Your task to perform on an android device: What is the recent news? Image 0: 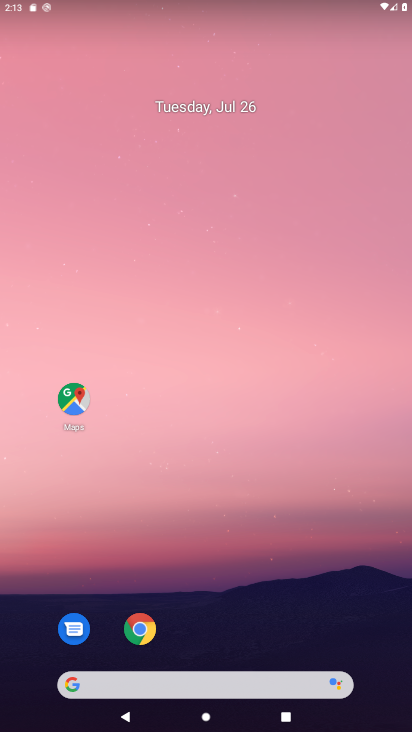
Step 0: drag from (198, 660) to (200, 56)
Your task to perform on an android device: What is the recent news? Image 1: 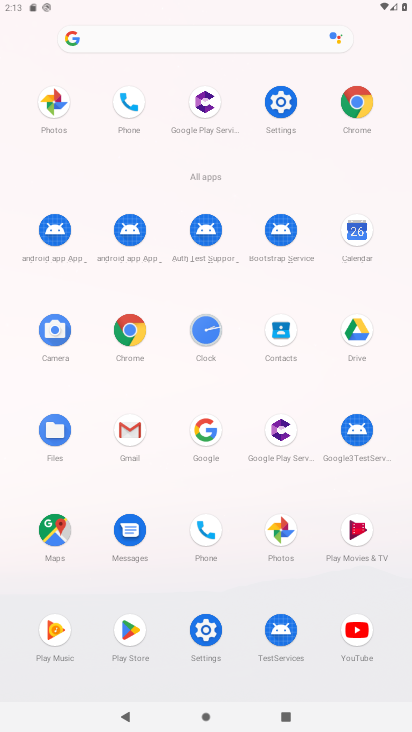
Step 1: click (209, 425)
Your task to perform on an android device: What is the recent news? Image 2: 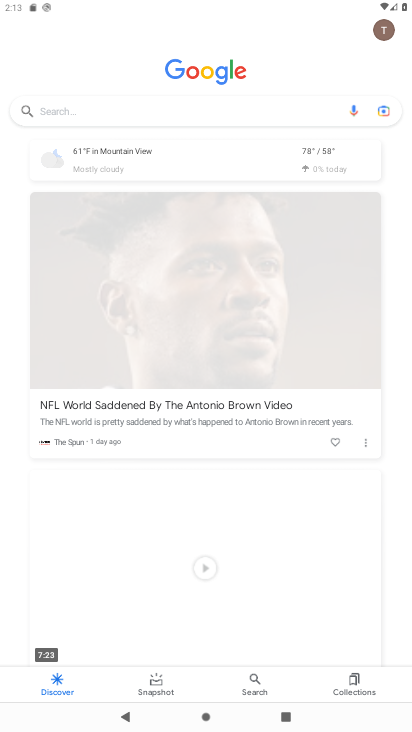
Step 2: click (141, 97)
Your task to perform on an android device: What is the recent news? Image 3: 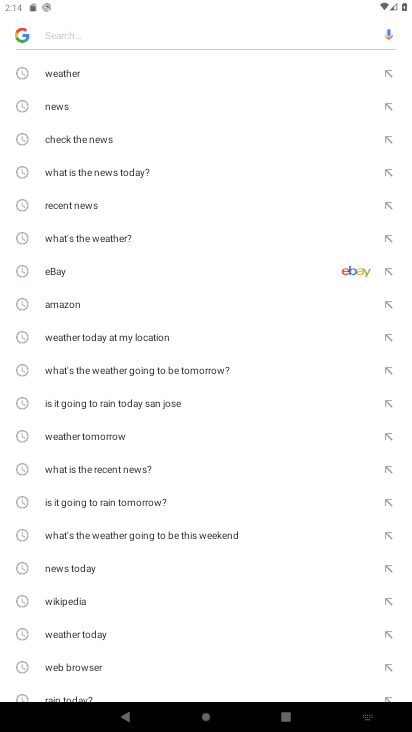
Step 3: click (91, 200)
Your task to perform on an android device: What is the recent news? Image 4: 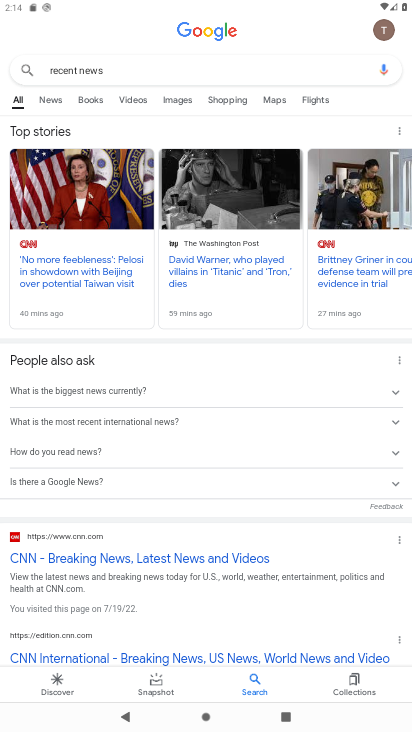
Step 4: click (145, 536)
Your task to perform on an android device: What is the recent news? Image 5: 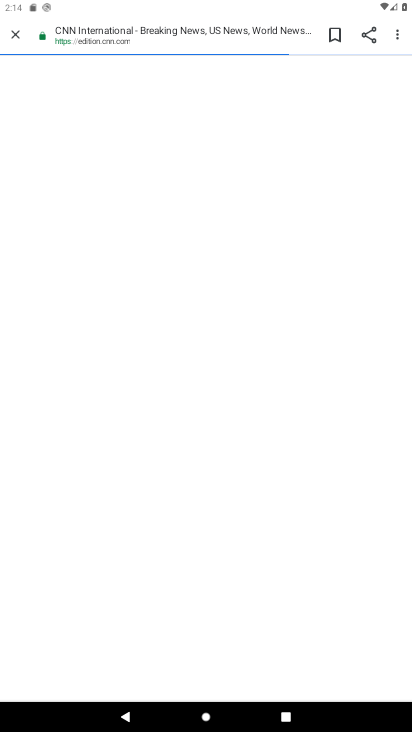
Step 5: press home button
Your task to perform on an android device: What is the recent news? Image 6: 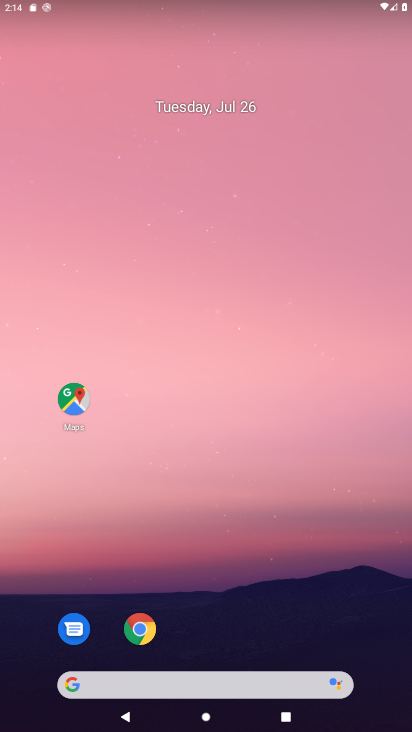
Step 6: click (252, 679)
Your task to perform on an android device: What is the recent news? Image 7: 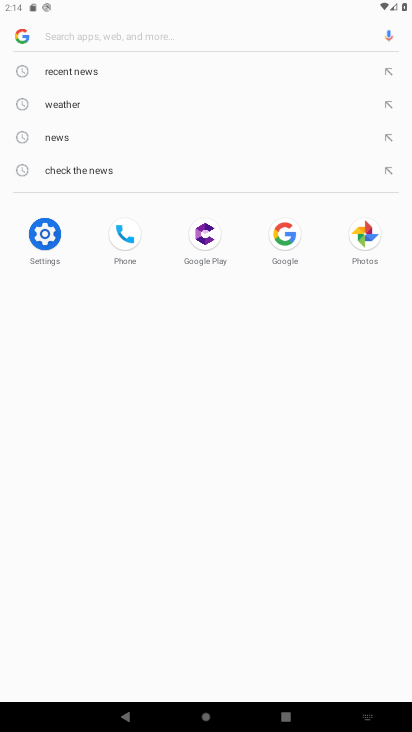
Step 7: click (83, 88)
Your task to perform on an android device: What is the recent news? Image 8: 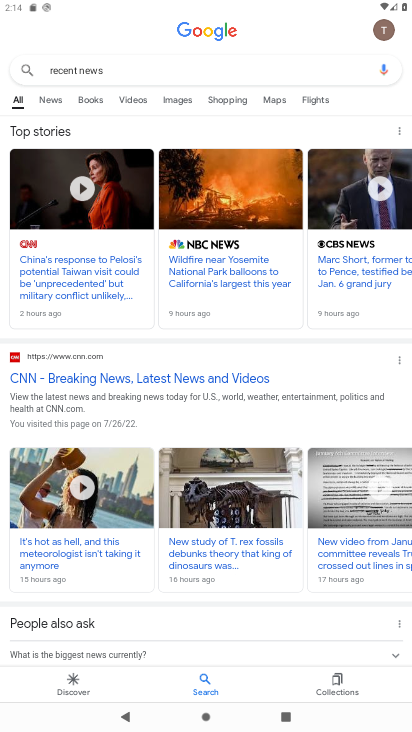
Step 8: task complete